Your task to perform on an android device: find which apps use the phone's location Image 0: 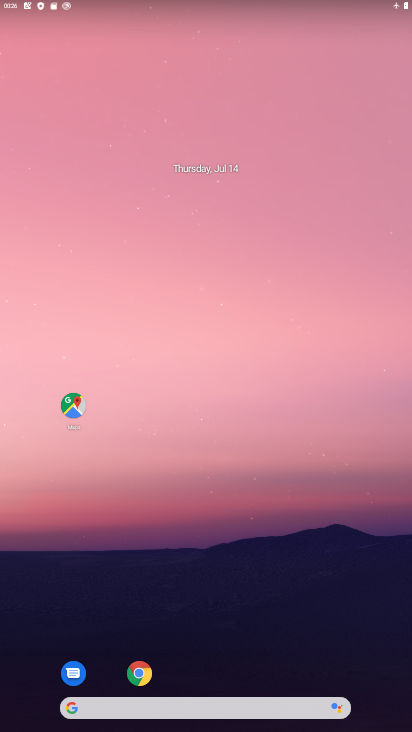
Step 0: drag from (187, 602) to (187, 195)
Your task to perform on an android device: find which apps use the phone's location Image 1: 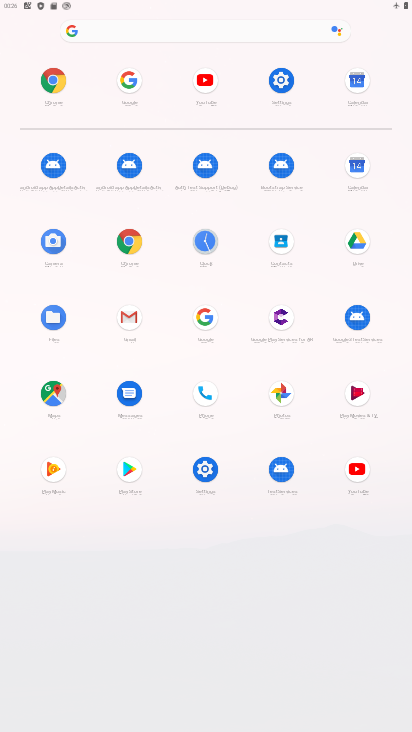
Step 1: click (268, 83)
Your task to perform on an android device: find which apps use the phone's location Image 2: 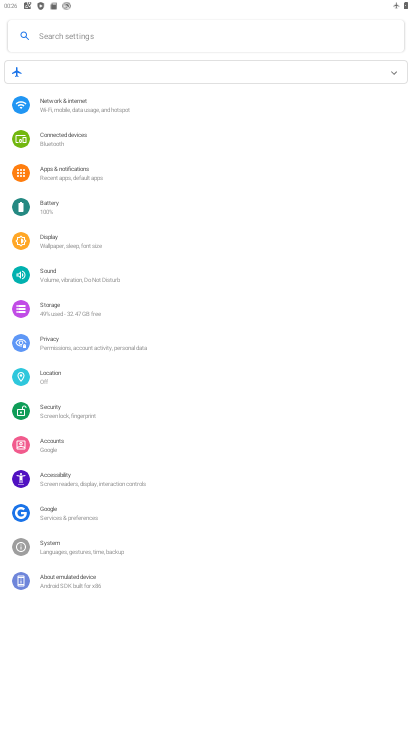
Step 2: click (62, 369)
Your task to perform on an android device: find which apps use the phone's location Image 3: 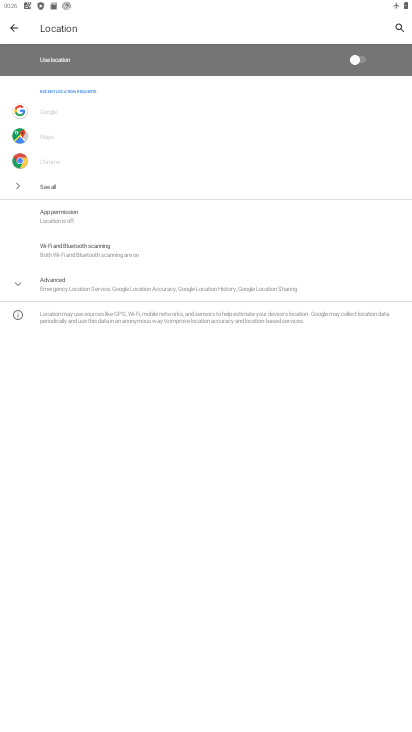
Step 3: click (80, 225)
Your task to perform on an android device: find which apps use the phone's location Image 4: 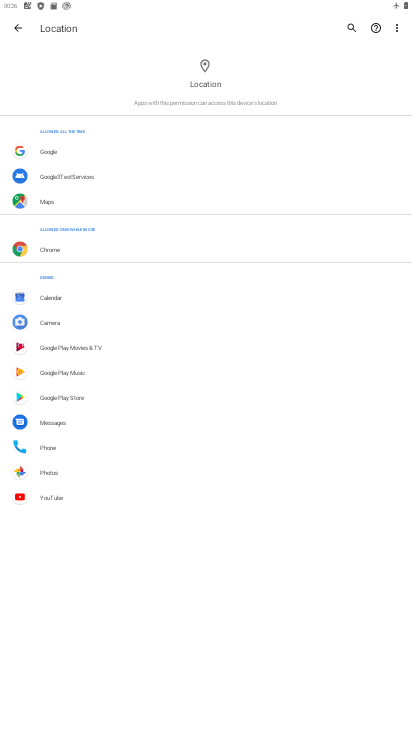
Step 4: task complete